Your task to perform on an android device: View the shopping cart on amazon.com. Search for razer kraken on amazon.com, select the first entry, add it to the cart, then select checkout. Image 0: 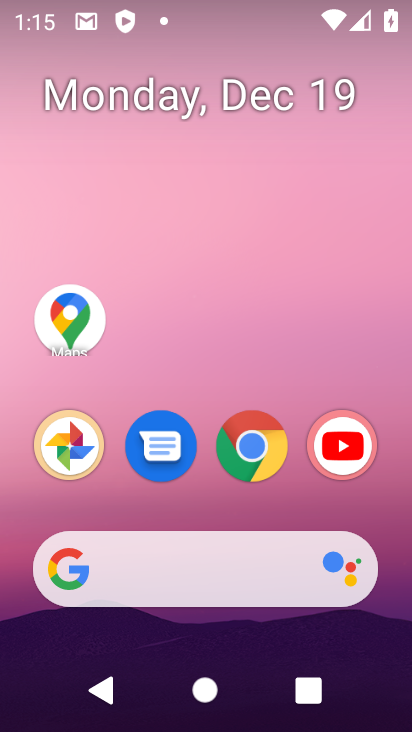
Step 0: click (273, 456)
Your task to perform on an android device: View the shopping cart on amazon.com. Search for razer kraken on amazon.com, select the first entry, add it to the cart, then select checkout. Image 1: 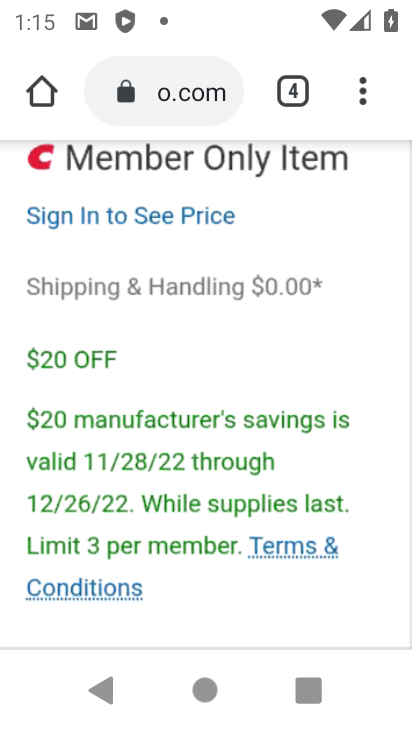
Step 1: drag from (215, 214) to (198, 564)
Your task to perform on an android device: View the shopping cart on amazon.com. Search for razer kraken on amazon.com, select the first entry, add it to the cart, then select checkout. Image 2: 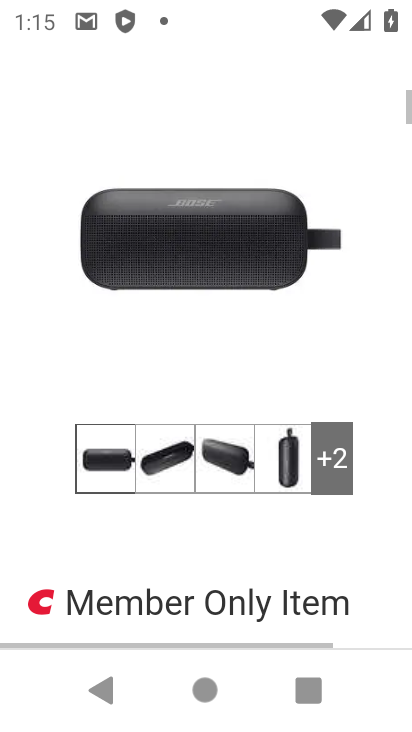
Step 2: click (183, 83)
Your task to perform on an android device: View the shopping cart on amazon.com. Search for razer kraken on amazon.com, select the first entry, add it to the cart, then select checkout. Image 3: 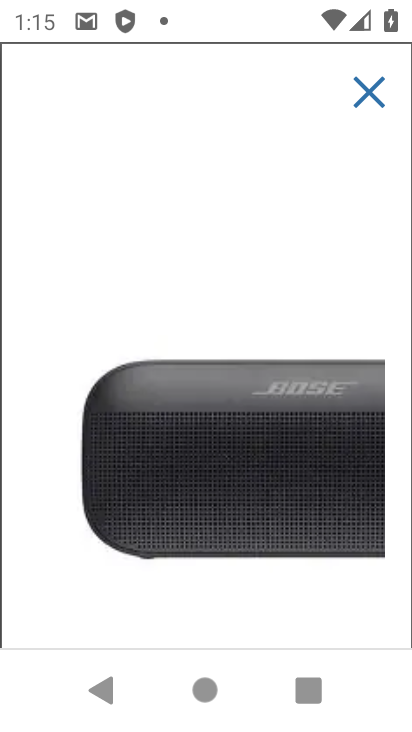
Step 3: click (366, 97)
Your task to perform on an android device: View the shopping cart on amazon.com. Search for razer kraken on amazon.com, select the first entry, add it to the cart, then select checkout. Image 4: 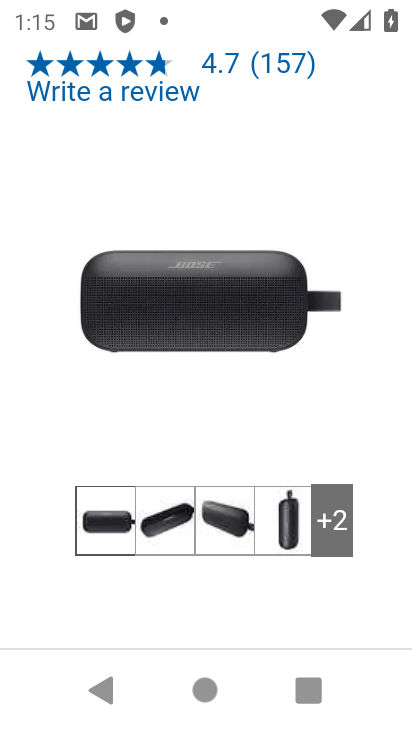
Step 4: drag from (239, 175) to (237, 679)
Your task to perform on an android device: View the shopping cart on amazon.com. Search for razer kraken on amazon.com, select the first entry, add it to the cart, then select checkout. Image 5: 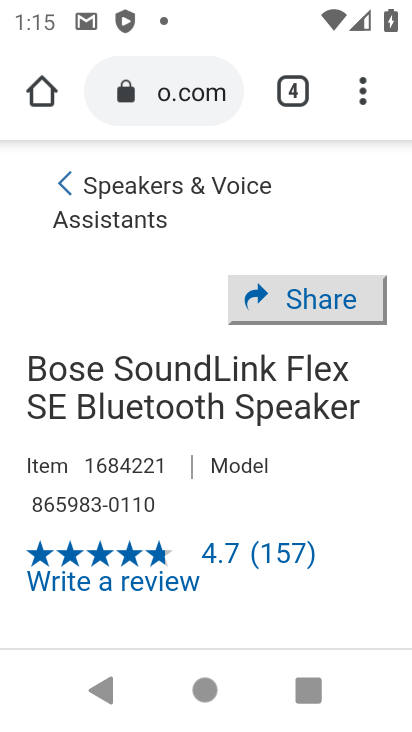
Step 5: click (211, 107)
Your task to perform on an android device: View the shopping cart on amazon.com. Search for razer kraken on amazon.com, select the first entry, add it to the cart, then select checkout. Image 6: 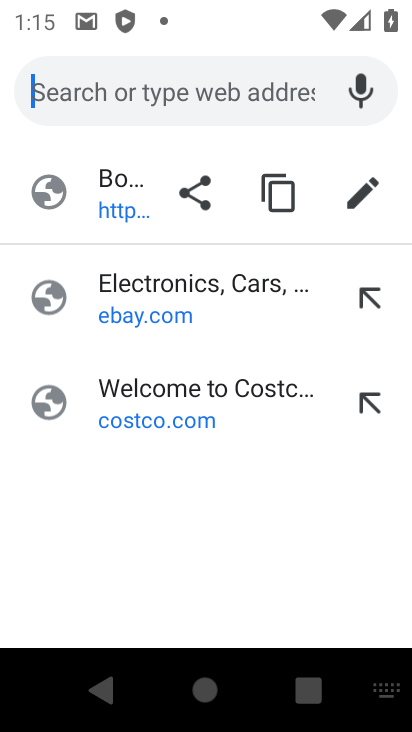
Step 6: type "amazon"
Your task to perform on an android device: View the shopping cart on amazon.com. Search for razer kraken on amazon.com, select the first entry, add it to the cart, then select checkout. Image 7: 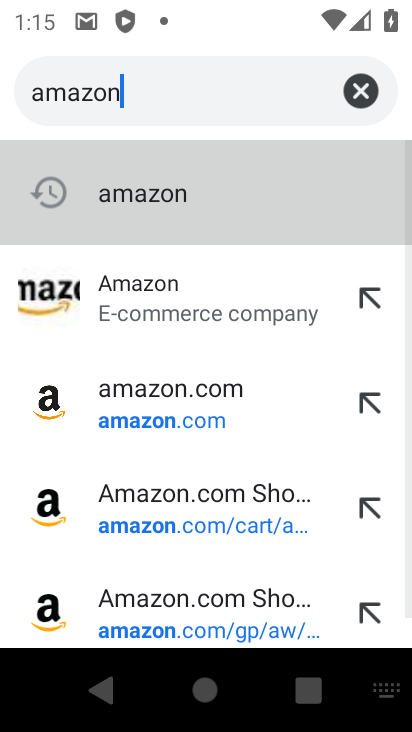
Step 7: type "'"
Your task to perform on an android device: View the shopping cart on amazon.com. Search for razer kraken on amazon.com, select the first entry, add it to the cart, then select checkout. Image 8: 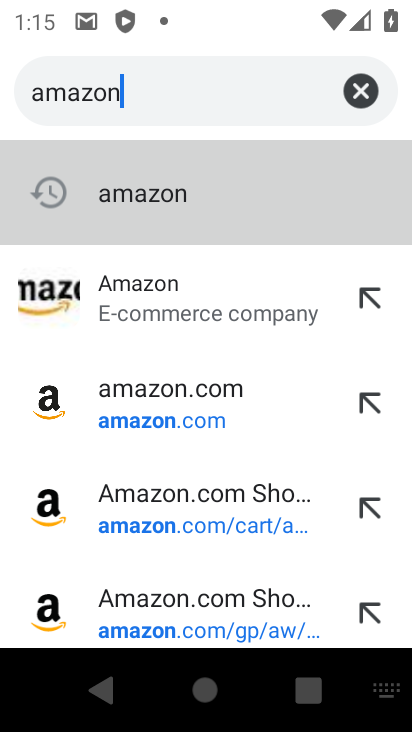
Step 8: click (121, 277)
Your task to perform on an android device: View the shopping cart on amazon.com. Search for razer kraken on amazon.com, select the first entry, add it to the cart, then select checkout. Image 9: 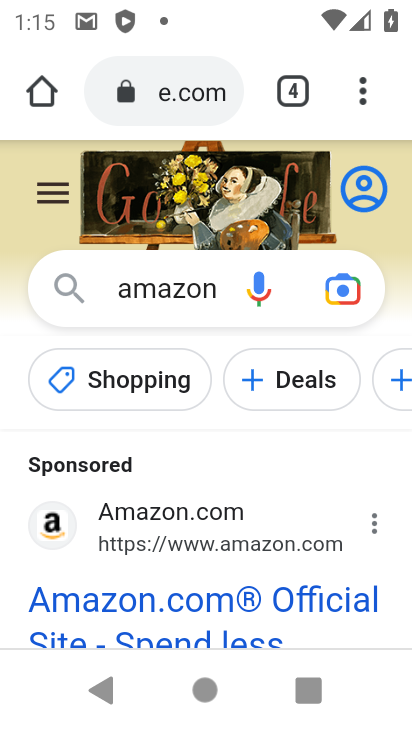
Step 9: click (156, 595)
Your task to perform on an android device: View the shopping cart on amazon.com. Search for razer kraken on amazon.com, select the first entry, add it to the cart, then select checkout. Image 10: 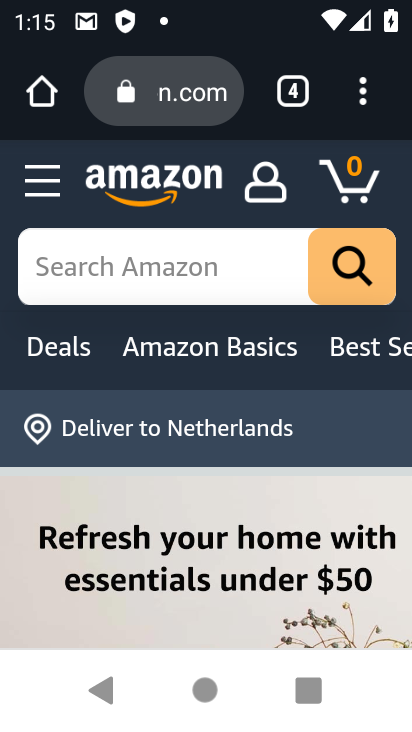
Step 10: click (78, 240)
Your task to perform on an android device: View the shopping cart on amazon.com. Search for razer kraken on amazon.com, select the first entry, add it to the cart, then select checkout. Image 11: 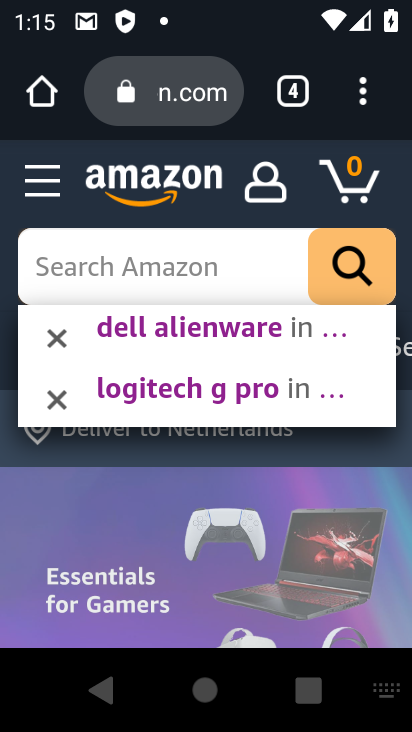
Step 11: type "razer karken "
Your task to perform on an android device: View the shopping cart on amazon.com. Search for razer kraken on amazon.com, select the first entry, add it to the cart, then select checkout. Image 12: 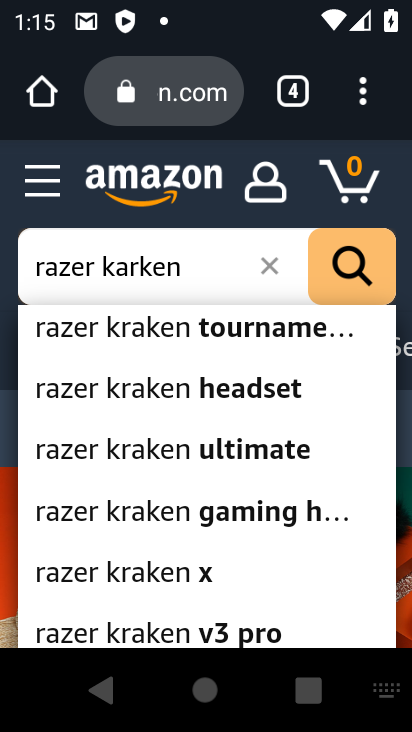
Step 12: click (367, 279)
Your task to perform on an android device: View the shopping cart on amazon.com. Search for razer kraken on amazon.com, select the first entry, add it to the cart, then select checkout. Image 13: 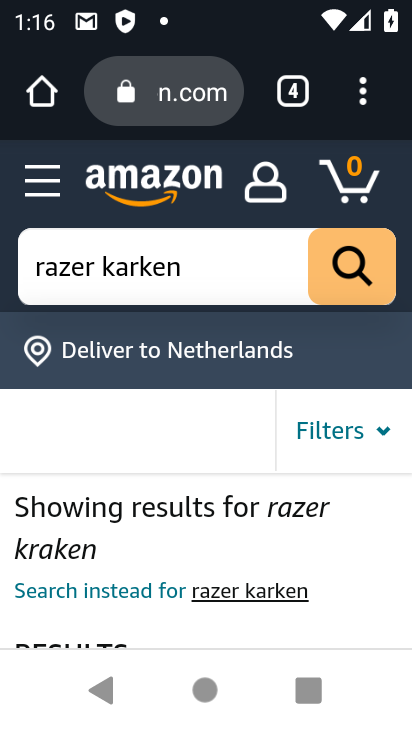
Step 13: drag from (201, 629) to (195, 283)
Your task to perform on an android device: View the shopping cart on amazon.com. Search for razer kraken on amazon.com, select the first entry, add it to the cart, then select checkout. Image 14: 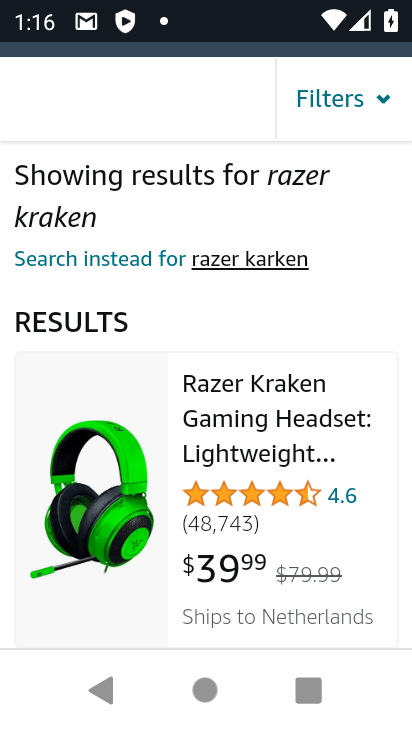
Step 14: click (248, 435)
Your task to perform on an android device: View the shopping cart on amazon.com. Search for razer kraken on amazon.com, select the first entry, add it to the cart, then select checkout. Image 15: 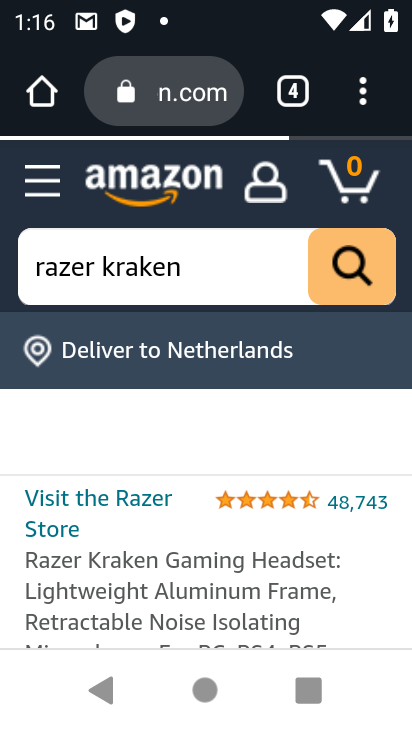
Step 15: task complete